Your task to perform on an android device: see creations saved in the google photos Image 0: 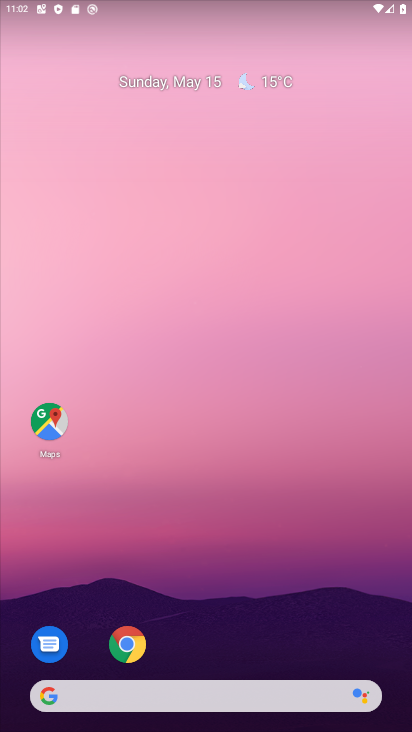
Step 0: drag from (276, 620) to (210, 86)
Your task to perform on an android device: see creations saved in the google photos Image 1: 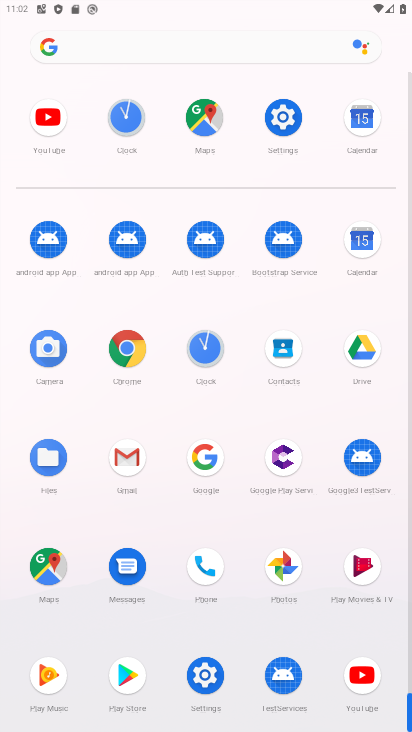
Step 1: click (288, 564)
Your task to perform on an android device: see creations saved in the google photos Image 2: 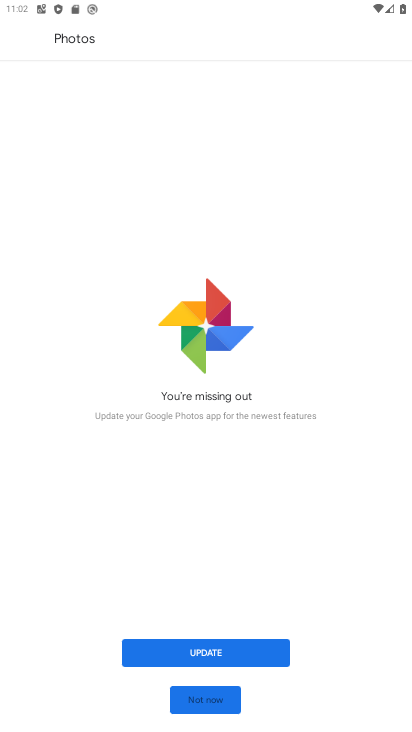
Step 2: click (204, 693)
Your task to perform on an android device: see creations saved in the google photos Image 3: 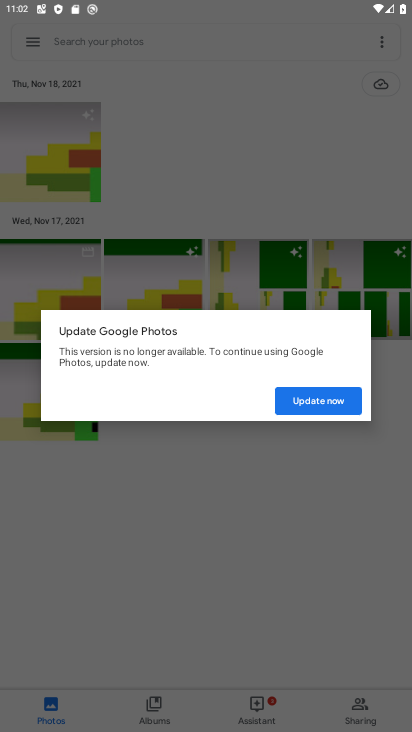
Step 3: click (308, 405)
Your task to perform on an android device: see creations saved in the google photos Image 4: 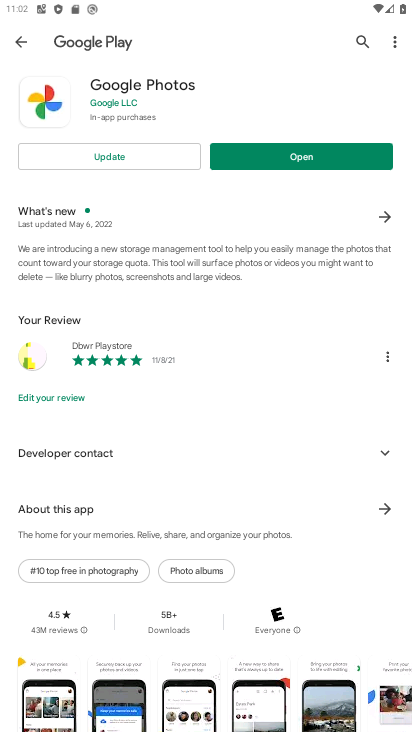
Step 4: click (302, 149)
Your task to perform on an android device: see creations saved in the google photos Image 5: 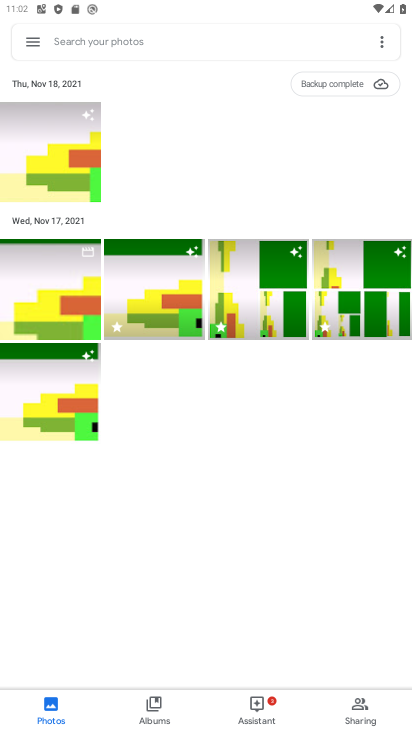
Step 5: click (132, 39)
Your task to perform on an android device: see creations saved in the google photos Image 6: 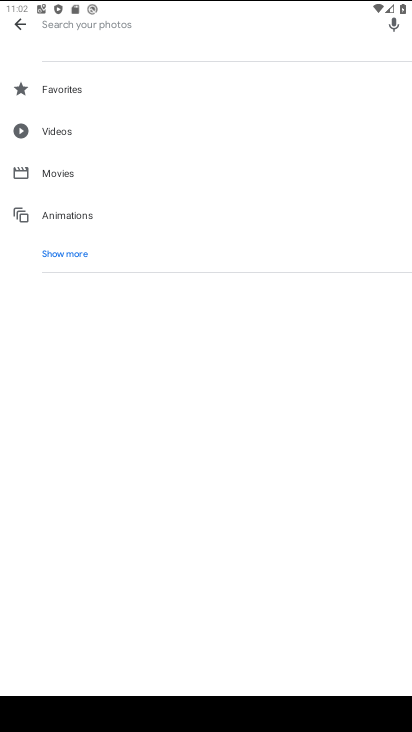
Step 6: click (65, 255)
Your task to perform on an android device: see creations saved in the google photos Image 7: 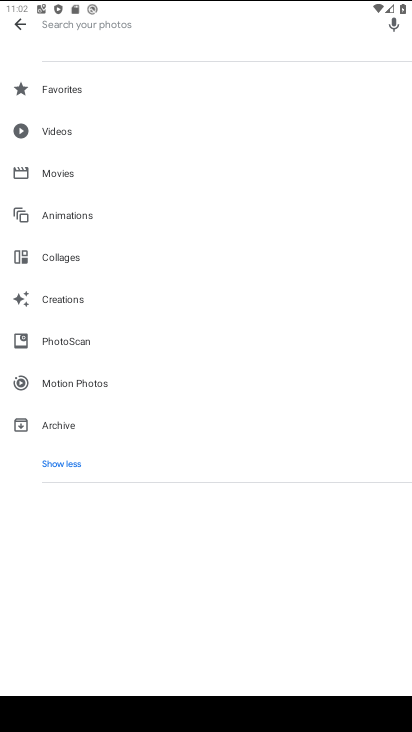
Step 7: click (59, 296)
Your task to perform on an android device: see creations saved in the google photos Image 8: 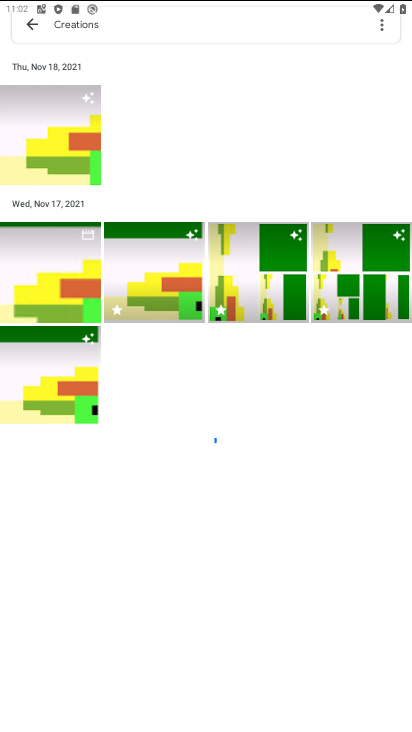
Step 8: task complete